Your task to perform on an android device: move a message to another label in the gmail app Image 0: 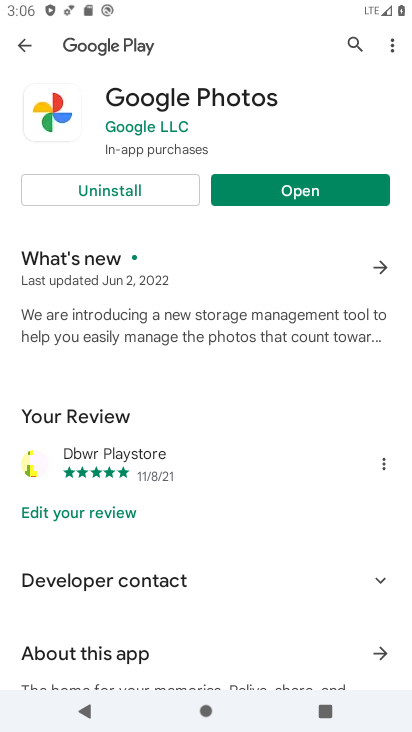
Step 0: press home button
Your task to perform on an android device: move a message to another label in the gmail app Image 1: 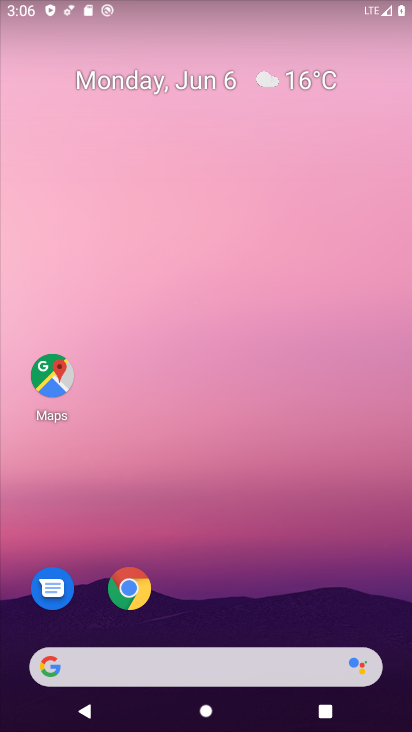
Step 1: drag from (229, 666) to (178, 187)
Your task to perform on an android device: move a message to another label in the gmail app Image 2: 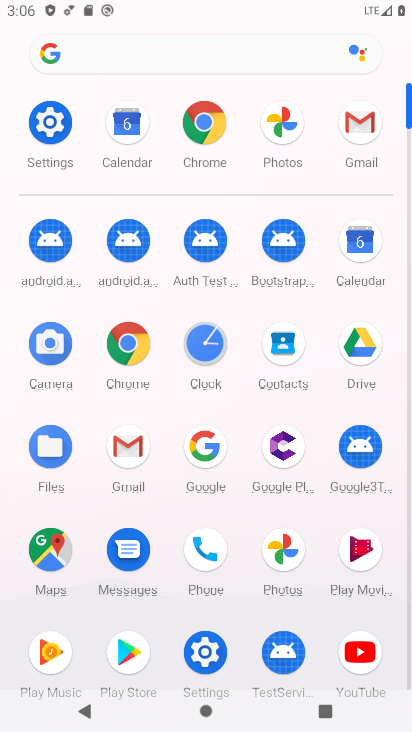
Step 2: click (127, 456)
Your task to perform on an android device: move a message to another label in the gmail app Image 3: 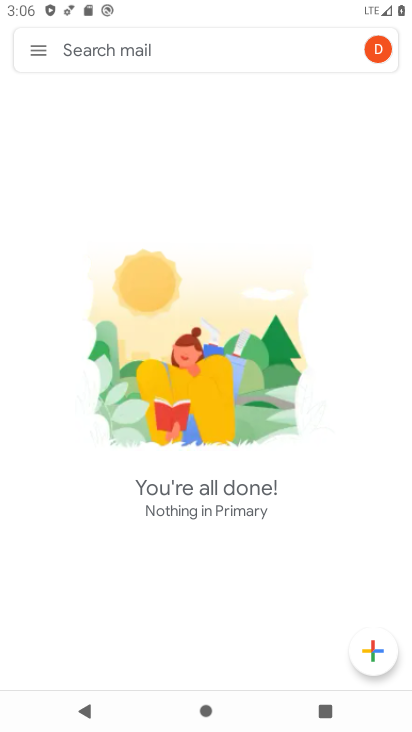
Step 3: click (34, 50)
Your task to perform on an android device: move a message to another label in the gmail app Image 4: 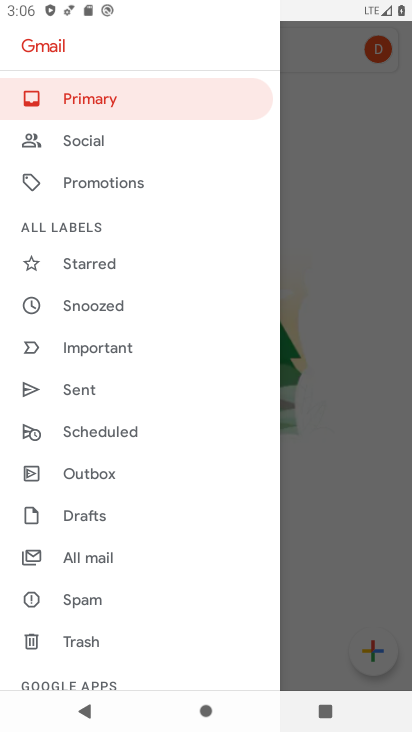
Step 4: click (78, 553)
Your task to perform on an android device: move a message to another label in the gmail app Image 5: 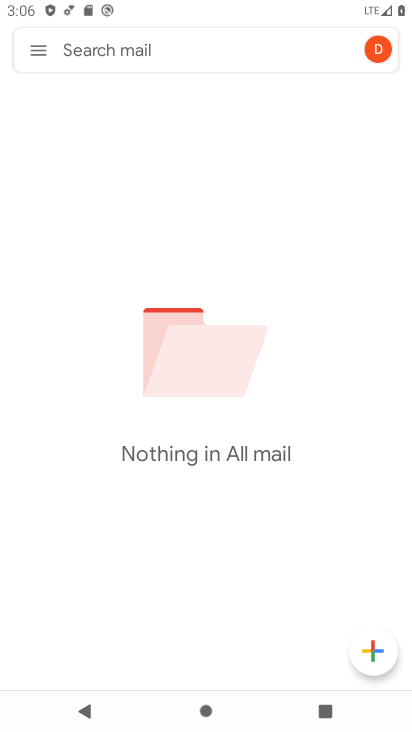
Step 5: task complete